Your task to perform on an android device: Open Yahoo.com Image 0: 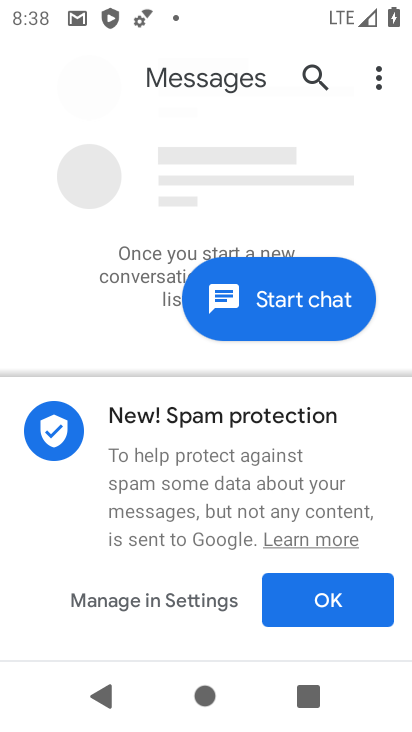
Step 0: press back button
Your task to perform on an android device: Open Yahoo.com Image 1: 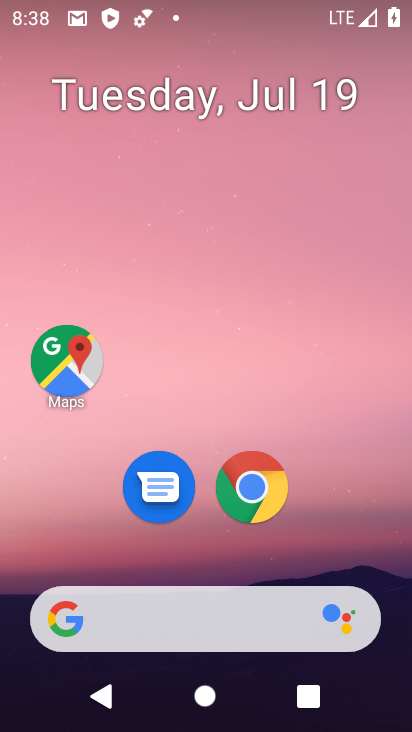
Step 1: click (264, 485)
Your task to perform on an android device: Open Yahoo.com Image 2: 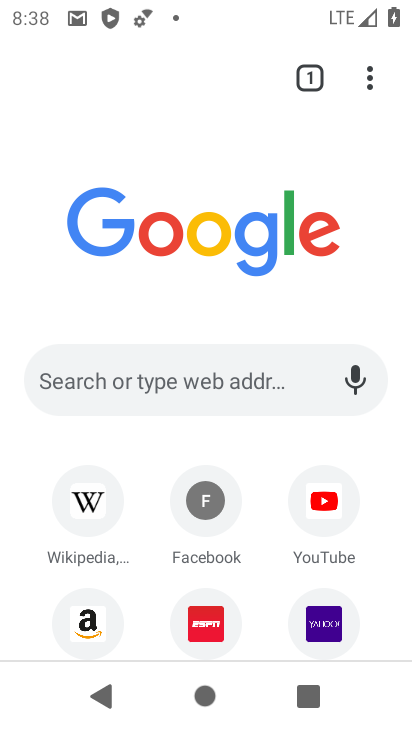
Step 2: click (318, 630)
Your task to perform on an android device: Open Yahoo.com Image 3: 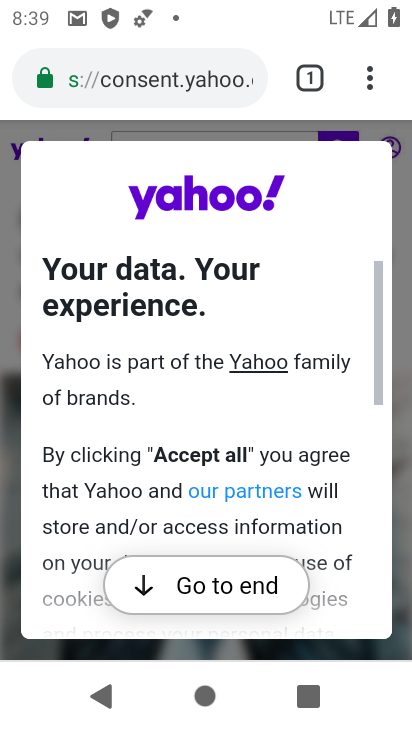
Step 3: task complete